Your task to perform on an android device: Go to Maps Image 0: 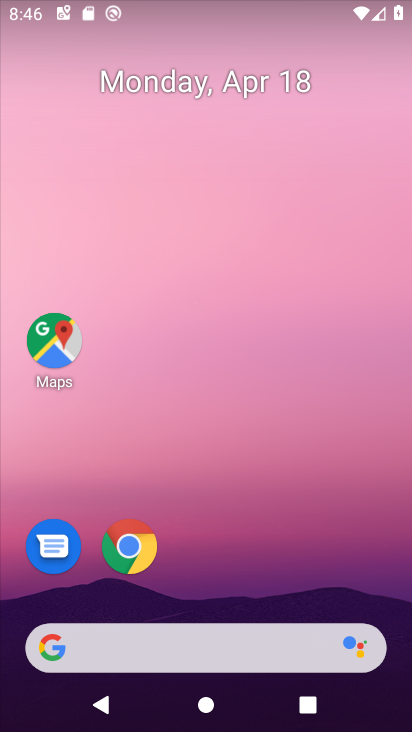
Step 0: drag from (347, 530) to (282, 129)
Your task to perform on an android device: Go to Maps Image 1: 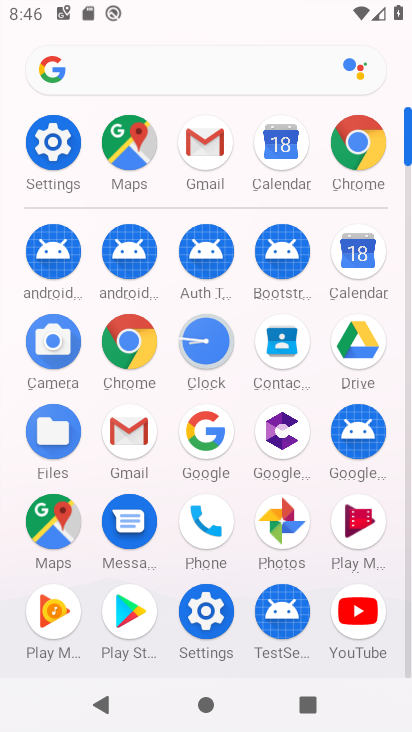
Step 1: click (134, 168)
Your task to perform on an android device: Go to Maps Image 2: 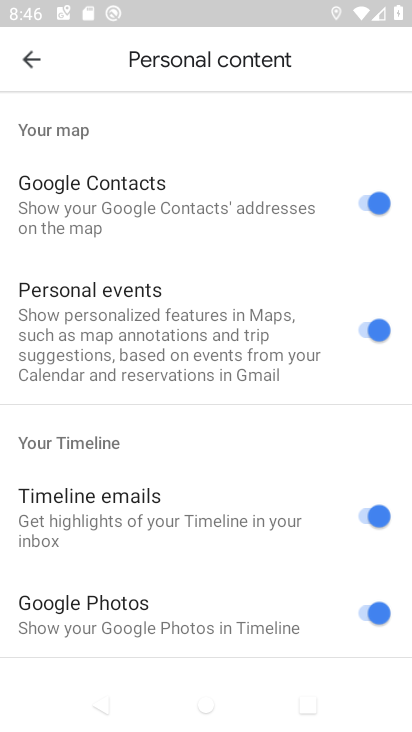
Step 2: press home button
Your task to perform on an android device: Go to Maps Image 3: 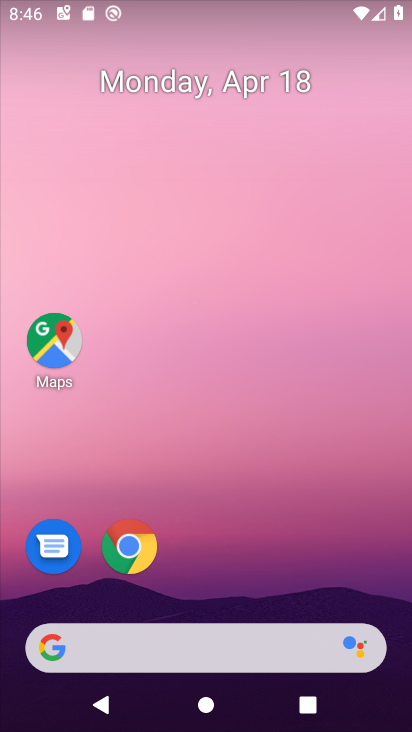
Step 3: click (43, 333)
Your task to perform on an android device: Go to Maps Image 4: 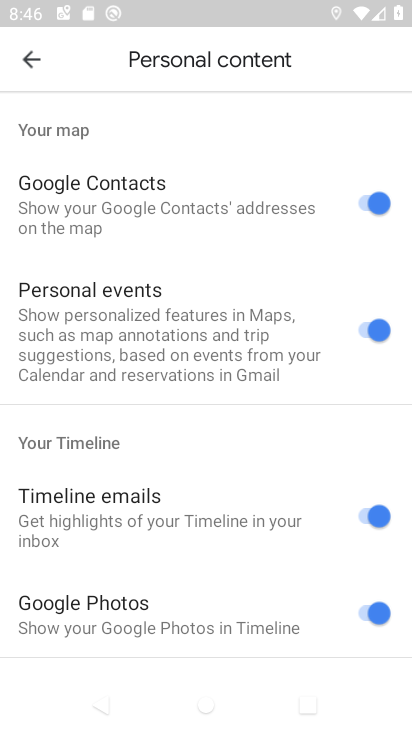
Step 4: click (39, 56)
Your task to perform on an android device: Go to Maps Image 5: 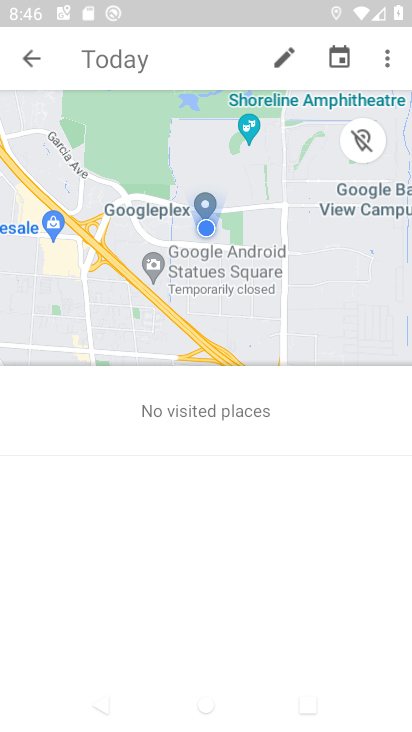
Step 5: click (39, 56)
Your task to perform on an android device: Go to Maps Image 6: 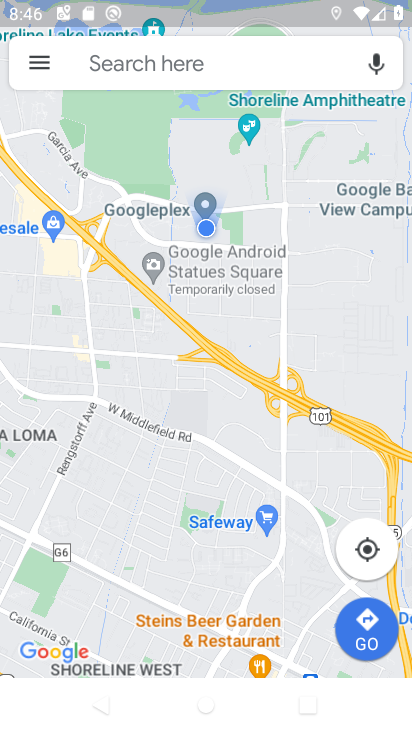
Step 6: task complete